Your task to perform on an android device: Open battery settings Image 0: 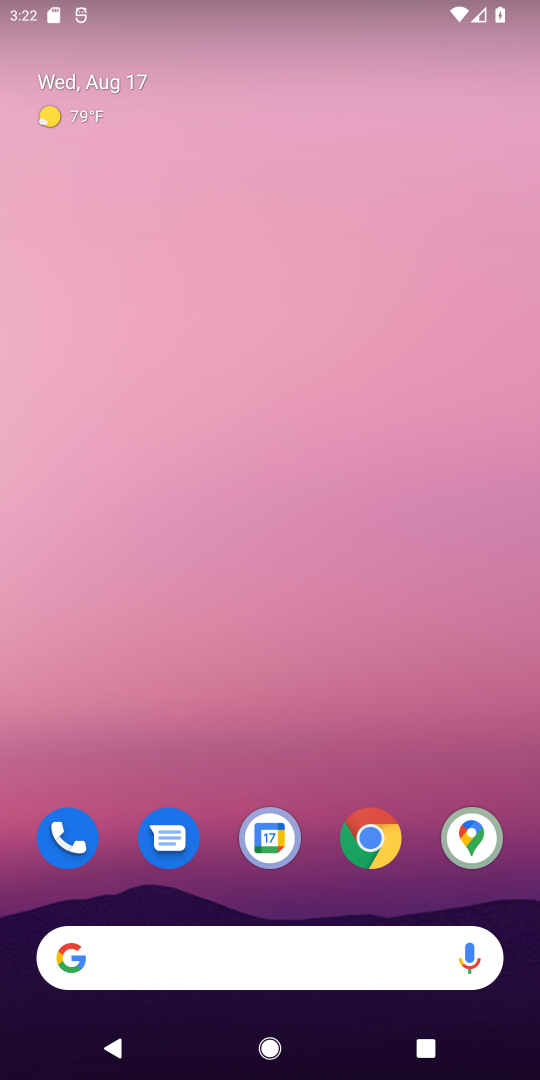
Step 0: drag from (195, 942) to (195, 483)
Your task to perform on an android device: Open battery settings Image 1: 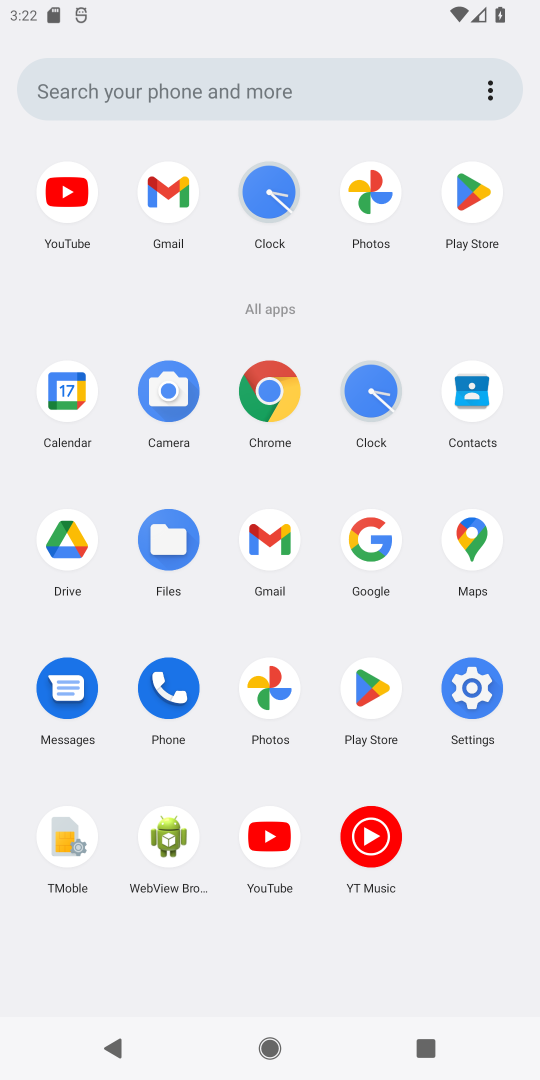
Step 1: click (453, 695)
Your task to perform on an android device: Open battery settings Image 2: 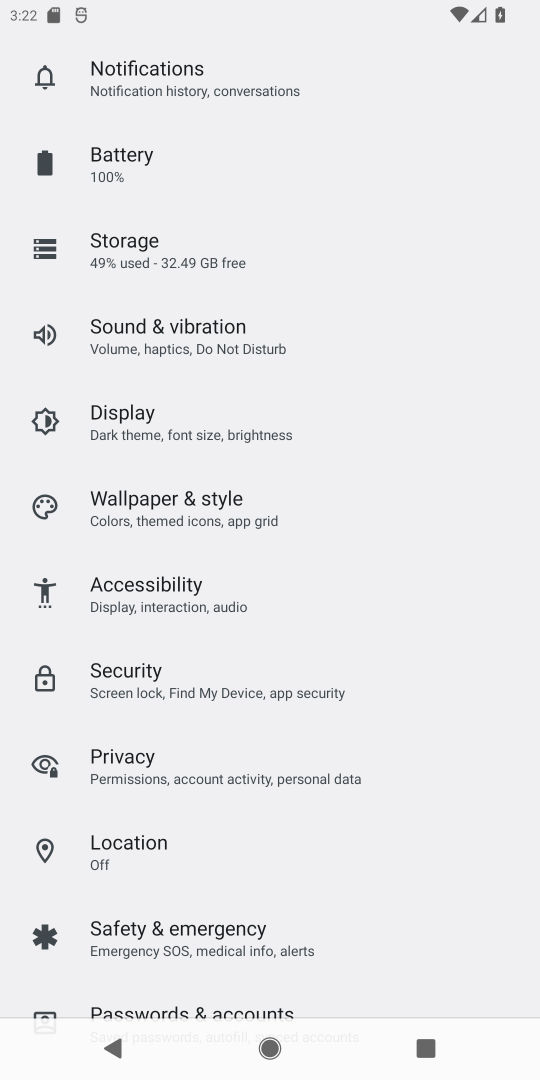
Step 2: click (113, 162)
Your task to perform on an android device: Open battery settings Image 3: 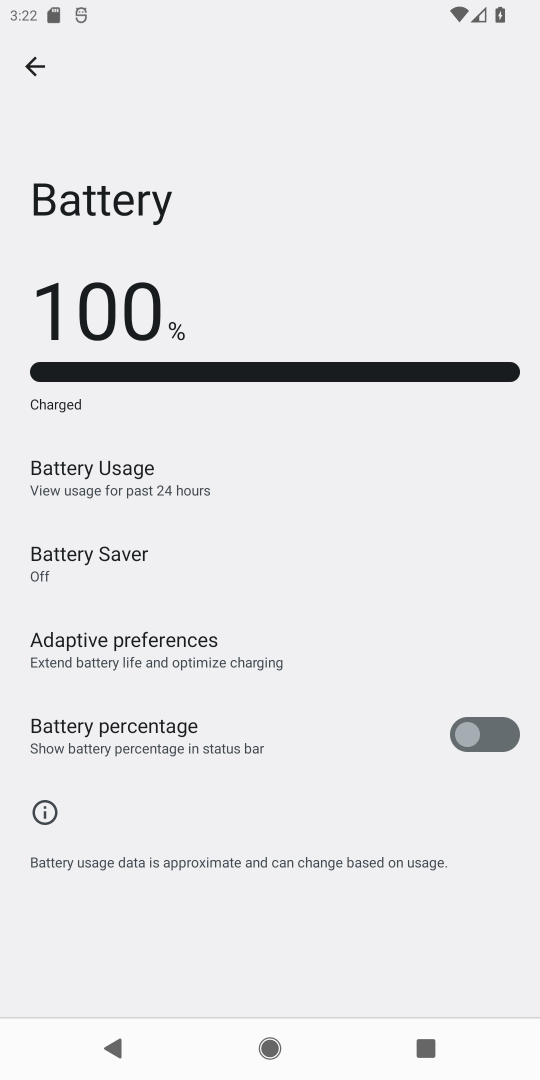
Step 3: task complete